Your task to perform on an android device: What is the recent news? Image 0: 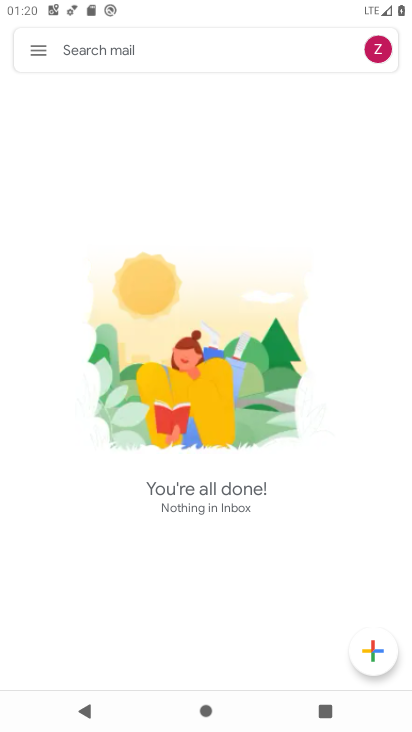
Step 0: press home button
Your task to perform on an android device: What is the recent news? Image 1: 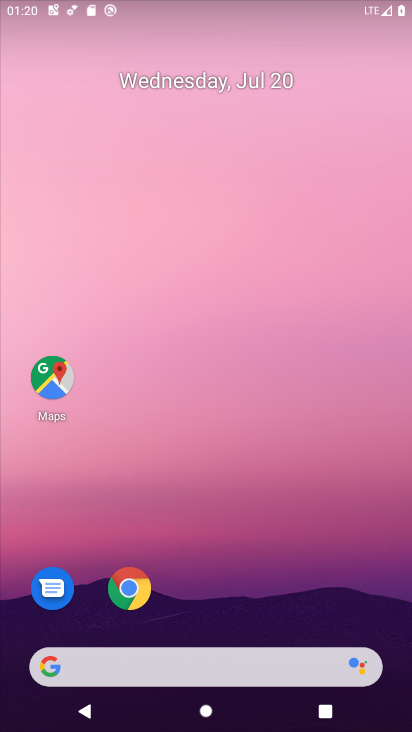
Step 1: drag from (251, 642) to (237, 314)
Your task to perform on an android device: What is the recent news? Image 2: 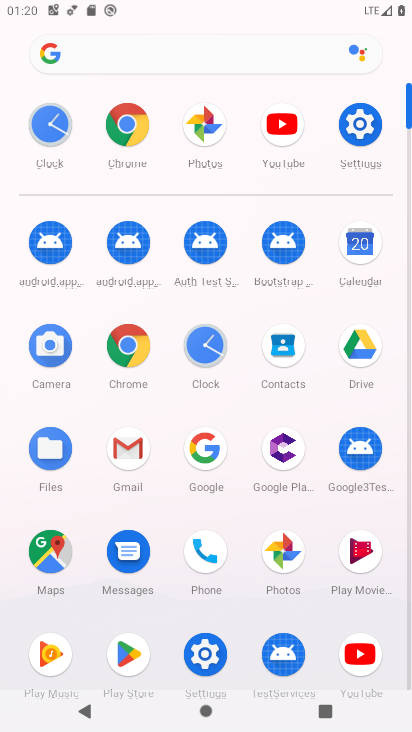
Step 2: click (127, 343)
Your task to perform on an android device: What is the recent news? Image 3: 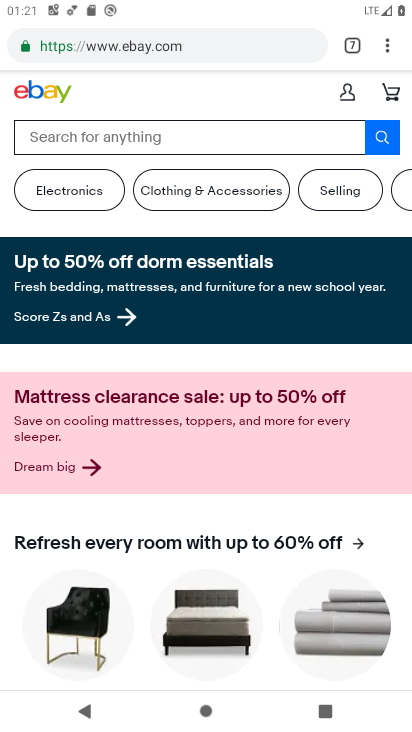
Step 3: click (395, 41)
Your task to perform on an android device: What is the recent news? Image 4: 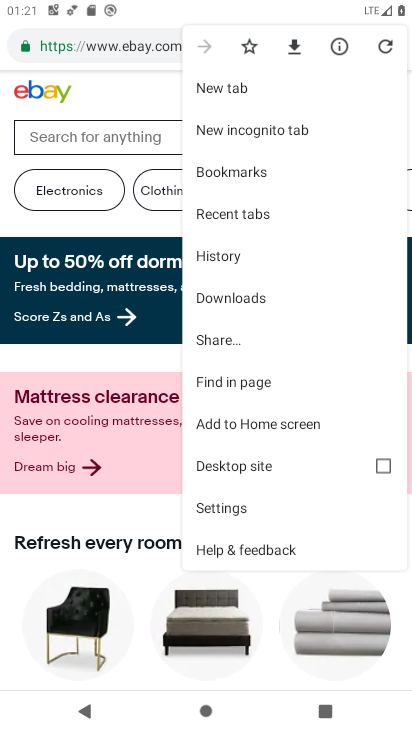
Step 4: click (199, 78)
Your task to perform on an android device: What is the recent news? Image 5: 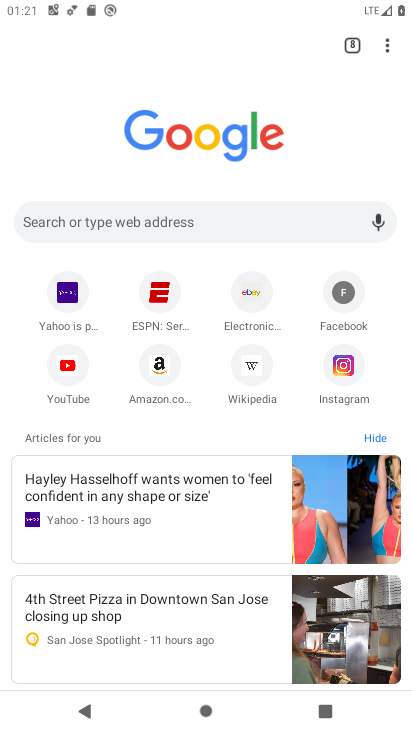
Step 5: click (223, 216)
Your task to perform on an android device: What is the recent news? Image 6: 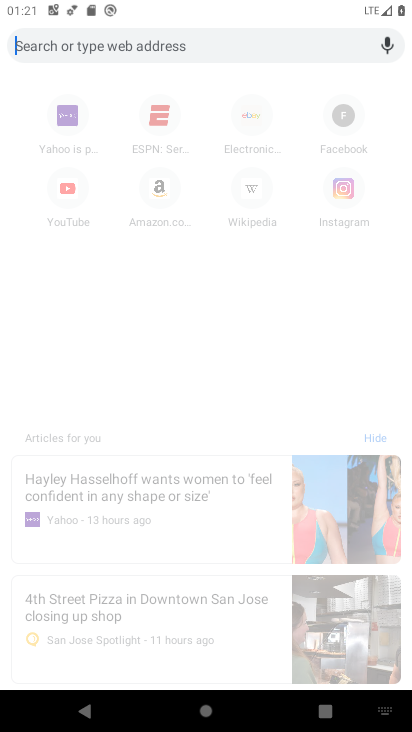
Step 6: type "What is the recent news? "
Your task to perform on an android device: What is the recent news? Image 7: 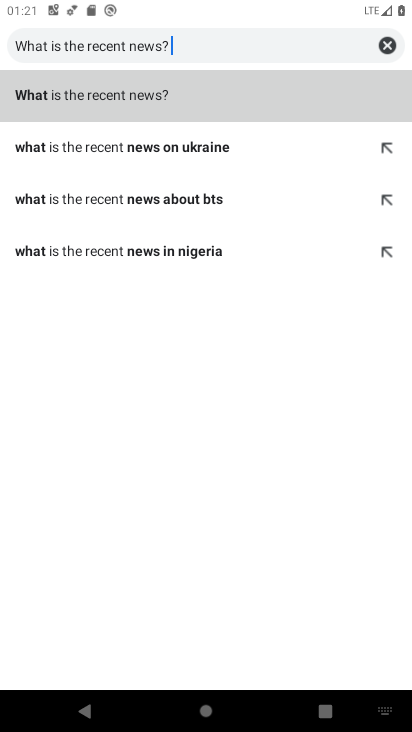
Step 7: click (260, 102)
Your task to perform on an android device: What is the recent news? Image 8: 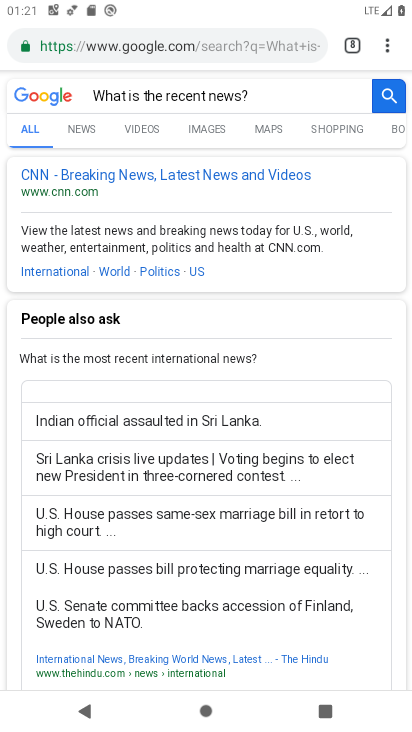
Step 8: task complete